Your task to perform on an android device: Open calendar and show me the second week of next month Image 0: 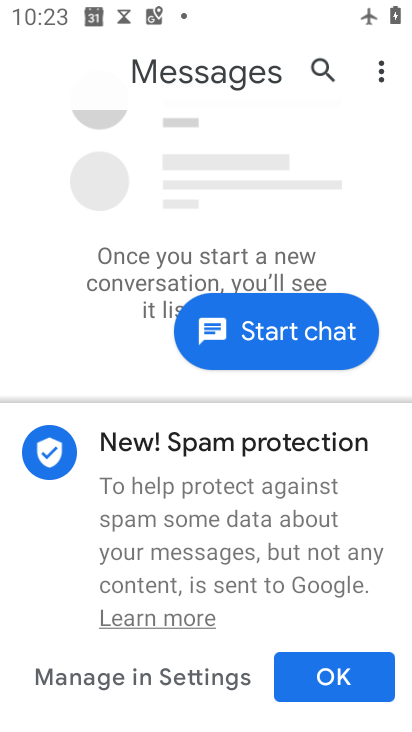
Step 0: press home button
Your task to perform on an android device: Open calendar and show me the second week of next month Image 1: 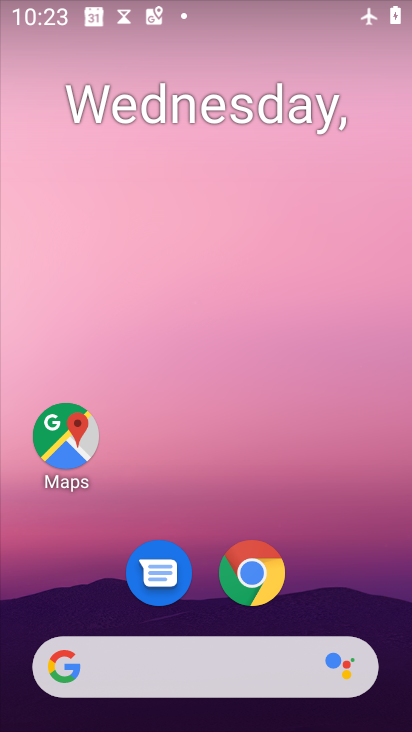
Step 1: drag from (327, 587) to (304, 282)
Your task to perform on an android device: Open calendar and show me the second week of next month Image 2: 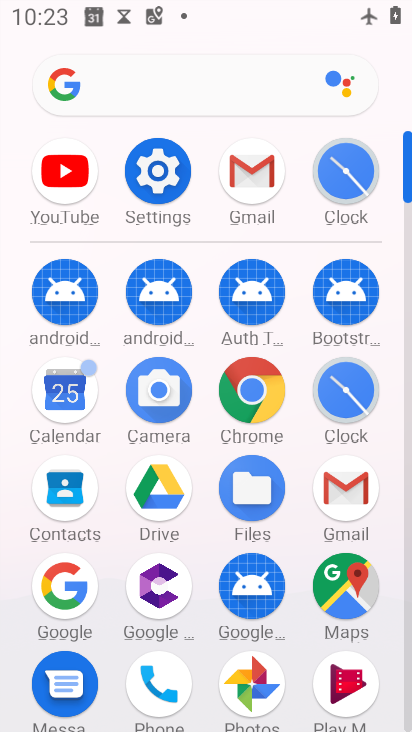
Step 2: click (67, 382)
Your task to perform on an android device: Open calendar and show me the second week of next month Image 3: 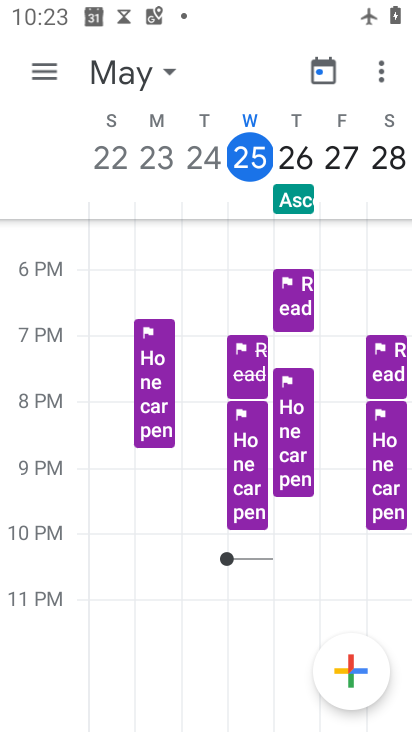
Step 3: click (26, 68)
Your task to perform on an android device: Open calendar and show me the second week of next month Image 4: 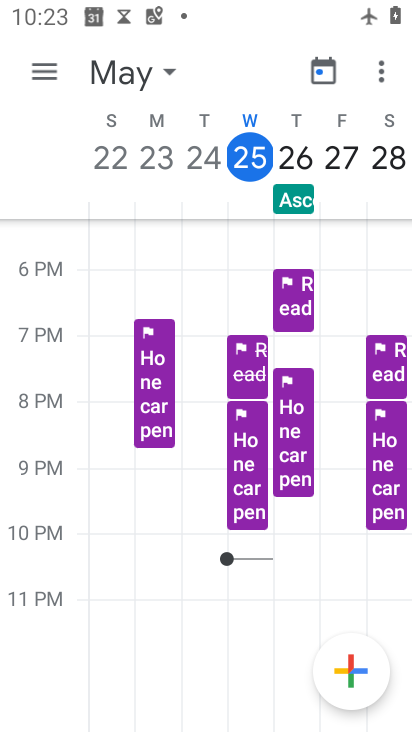
Step 4: click (49, 68)
Your task to perform on an android device: Open calendar and show me the second week of next month Image 5: 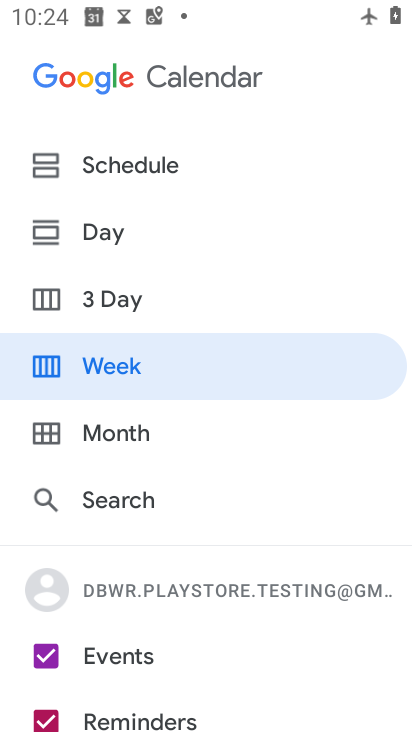
Step 5: click (134, 429)
Your task to perform on an android device: Open calendar and show me the second week of next month Image 6: 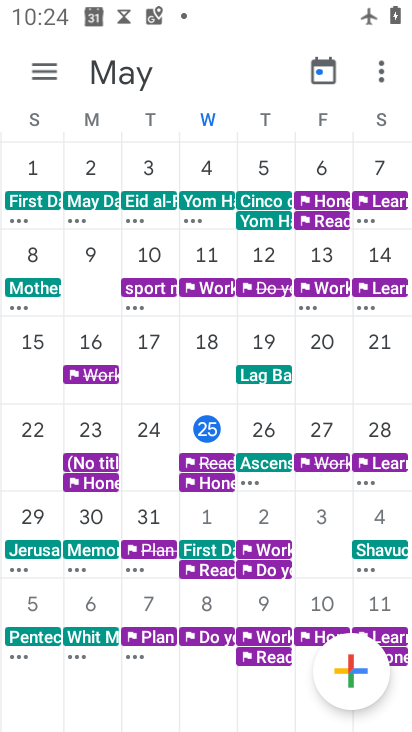
Step 6: task complete